Your task to perform on an android device: Open the Play Movies app and select the watchlist tab. Image 0: 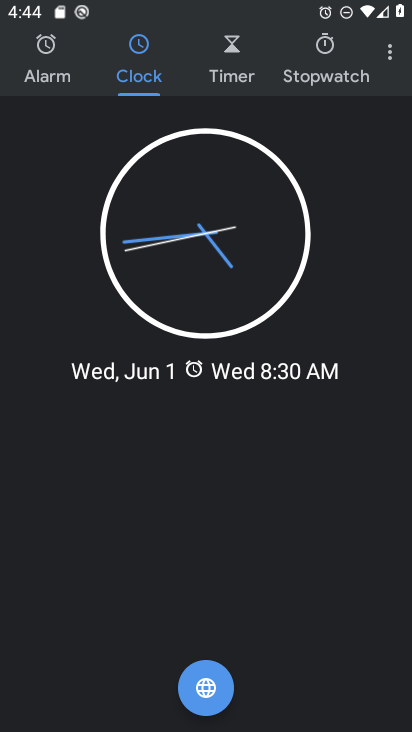
Step 0: press home button
Your task to perform on an android device: Open the Play Movies app and select the watchlist tab. Image 1: 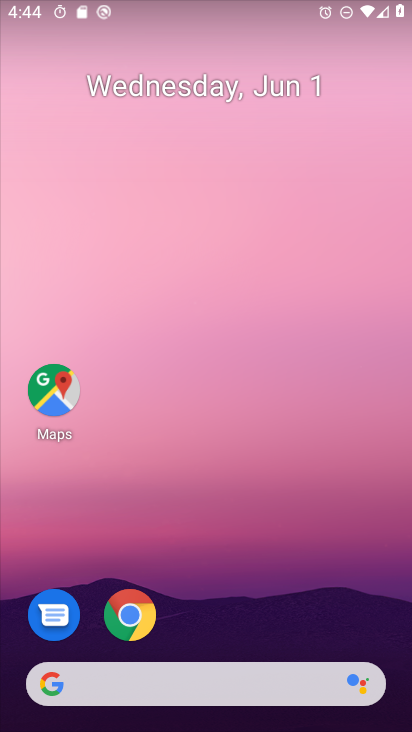
Step 1: drag from (289, 629) to (232, 169)
Your task to perform on an android device: Open the Play Movies app and select the watchlist tab. Image 2: 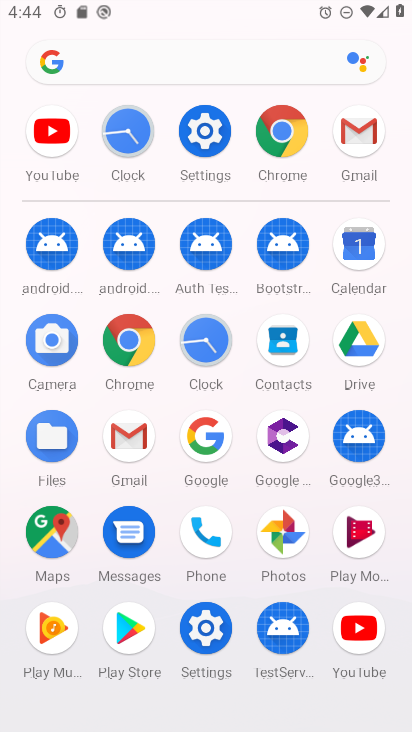
Step 2: click (343, 535)
Your task to perform on an android device: Open the Play Movies app and select the watchlist tab. Image 3: 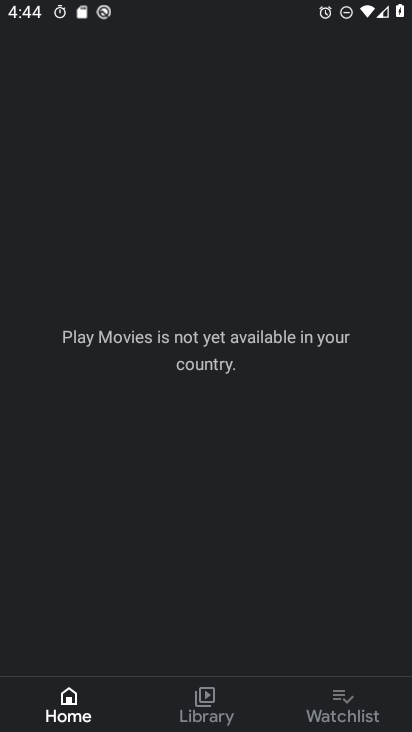
Step 3: click (352, 709)
Your task to perform on an android device: Open the Play Movies app and select the watchlist tab. Image 4: 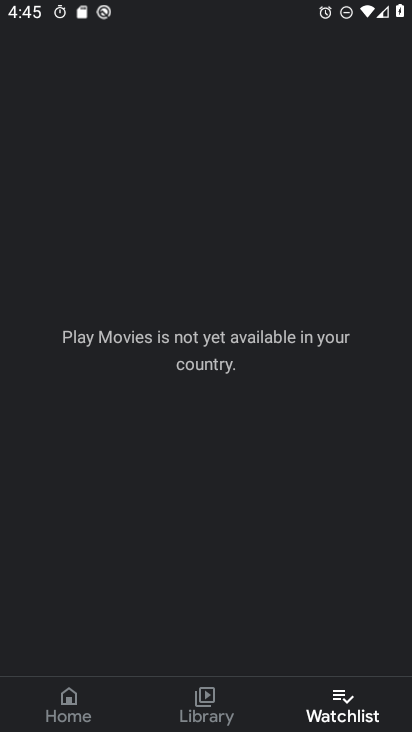
Step 4: task complete